Your task to perform on an android device: Open the calendar app, open the side menu, and click the "Day" option Image 0: 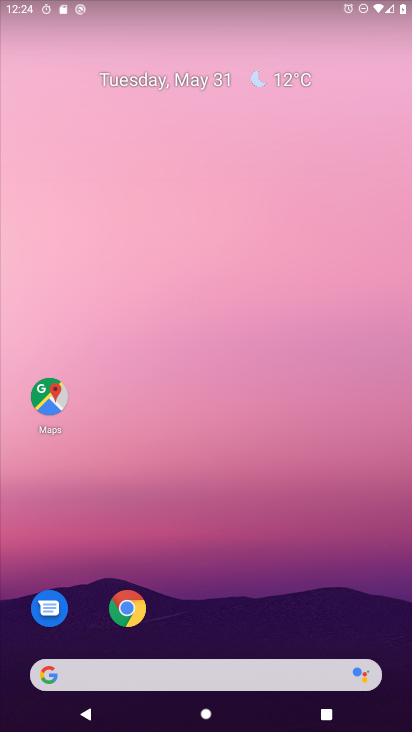
Step 0: drag from (282, 637) to (355, 6)
Your task to perform on an android device: Open the calendar app, open the side menu, and click the "Day" option Image 1: 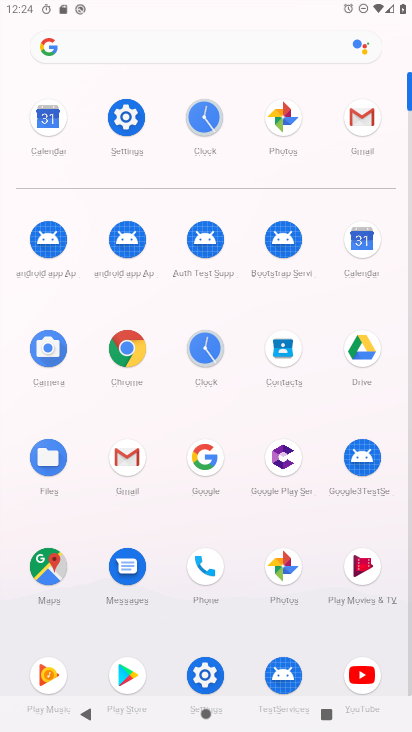
Step 1: click (44, 123)
Your task to perform on an android device: Open the calendar app, open the side menu, and click the "Day" option Image 2: 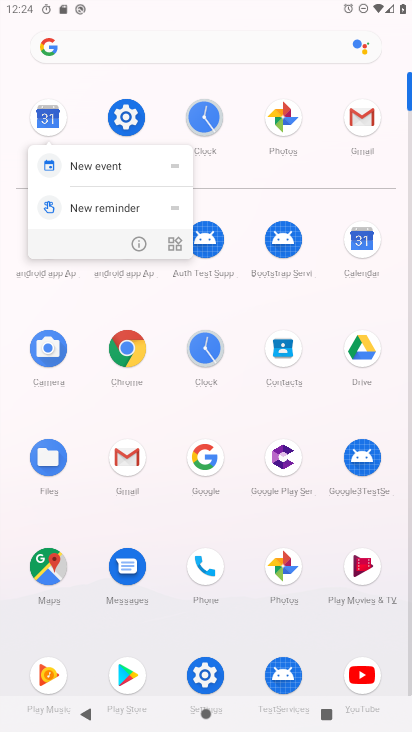
Step 2: click (44, 123)
Your task to perform on an android device: Open the calendar app, open the side menu, and click the "Day" option Image 3: 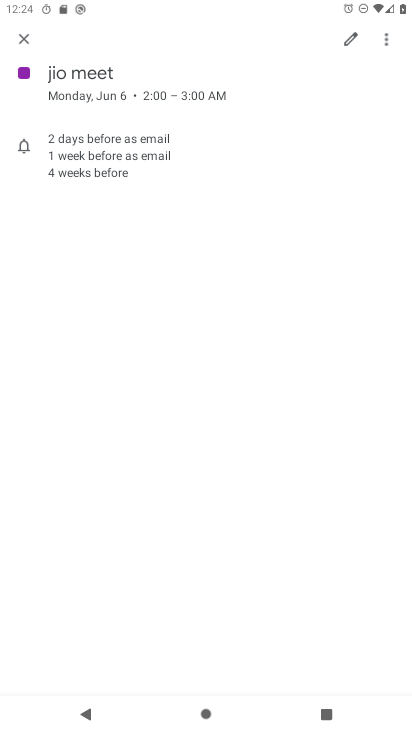
Step 3: click (21, 30)
Your task to perform on an android device: Open the calendar app, open the side menu, and click the "Day" option Image 4: 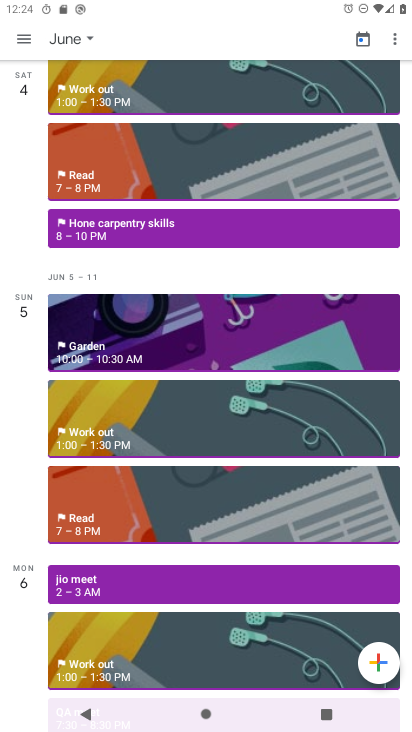
Step 4: click (19, 40)
Your task to perform on an android device: Open the calendar app, open the side menu, and click the "Day" option Image 5: 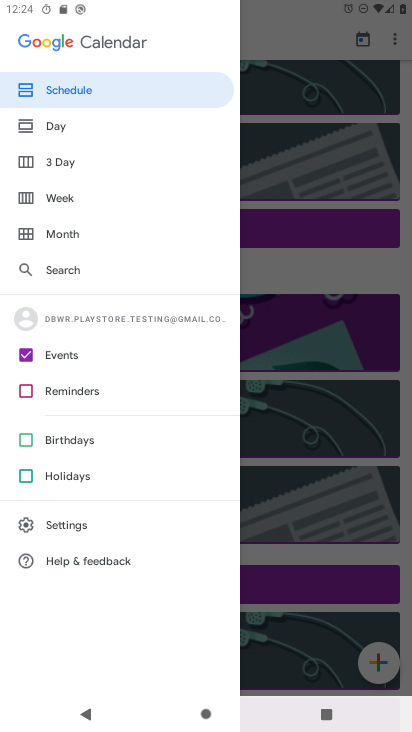
Step 5: click (37, 127)
Your task to perform on an android device: Open the calendar app, open the side menu, and click the "Day" option Image 6: 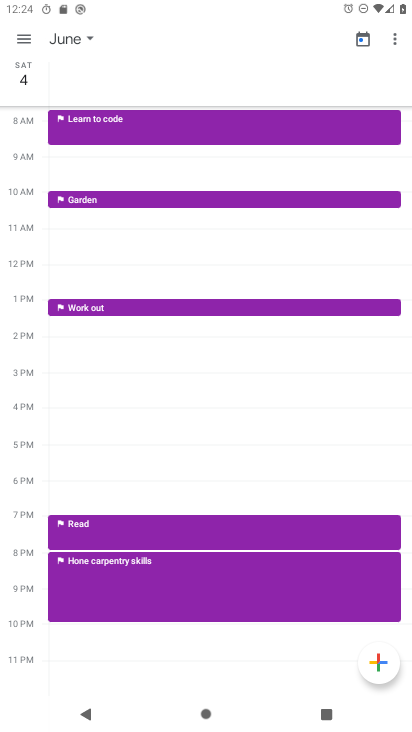
Step 6: task complete